Your task to perform on an android device: Is it going to rain today? Image 0: 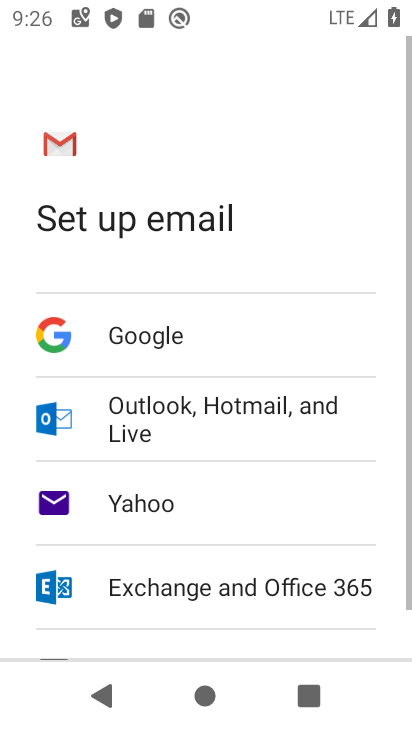
Step 0: press home button
Your task to perform on an android device: Is it going to rain today? Image 1: 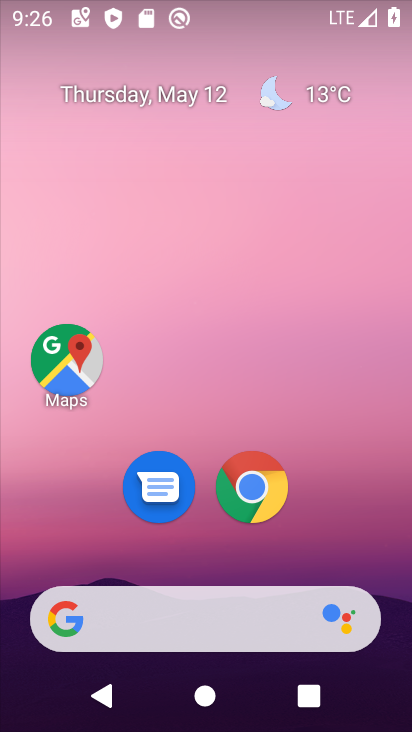
Step 1: click (333, 97)
Your task to perform on an android device: Is it going to rain today? Image 2: 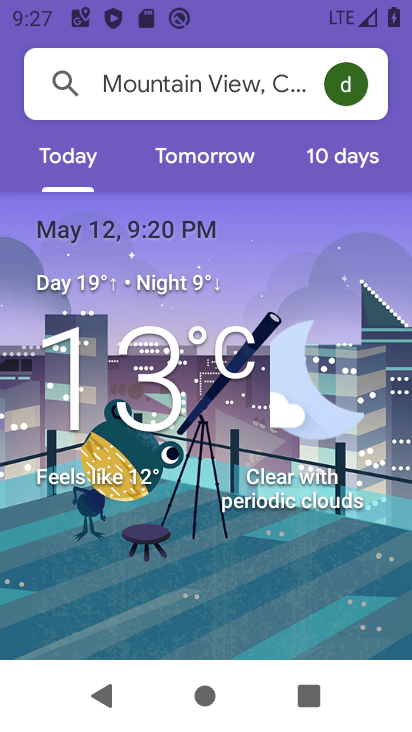
Step 2: click (82, 175)
Your task to perform on an android device: Is it going to rain today? Image 3: 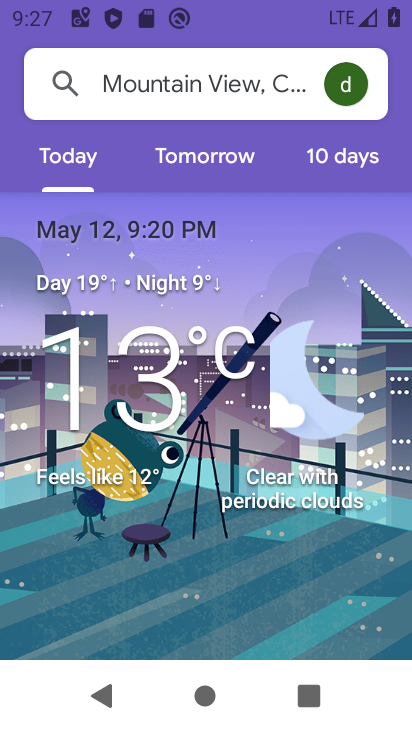
Step 3: task complete